Your task to perform on an android device: Go to sound settings Image 0: 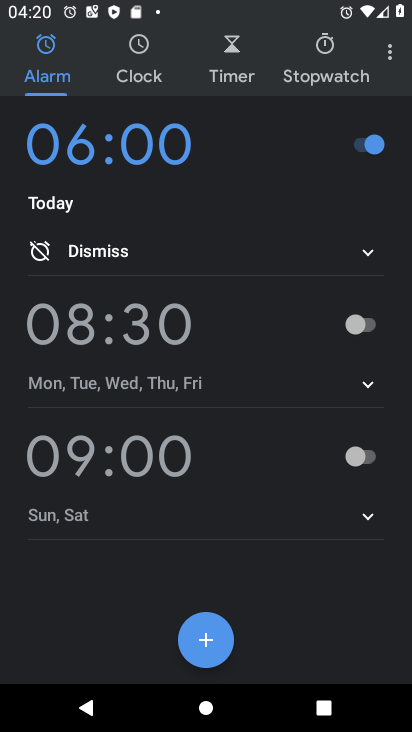
Step 0: press home button
Your task to perform on an android device: Go to sound settings Image 1: 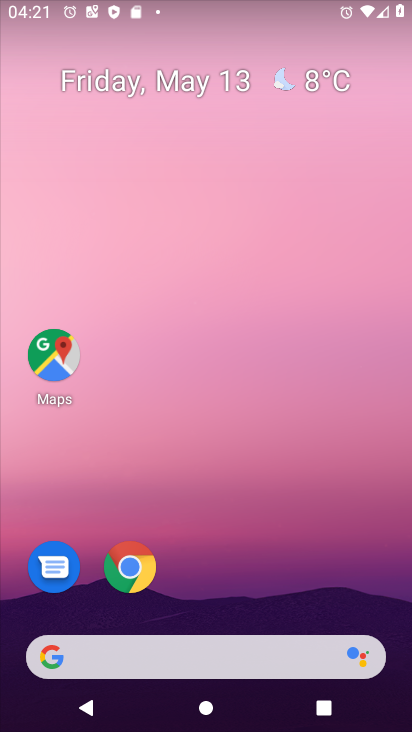
Step 1: drag from (263, 587) to (243, 45)
Your task to perform on an android device: Go to sound settings Image 2: 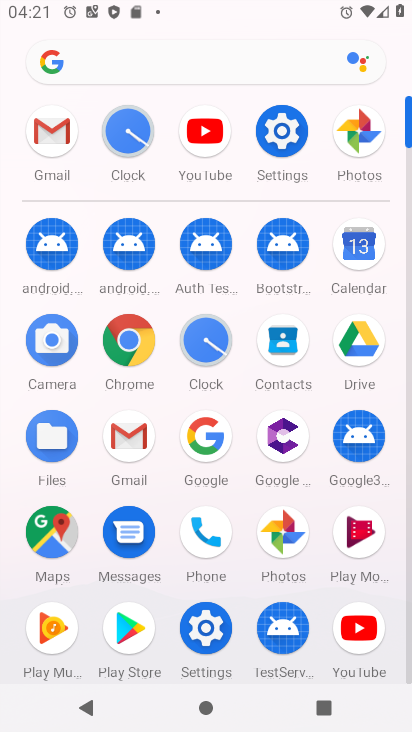
Step 2: click (280, 126)
Your task to perform on an android device: Go to sound settings Image 3: 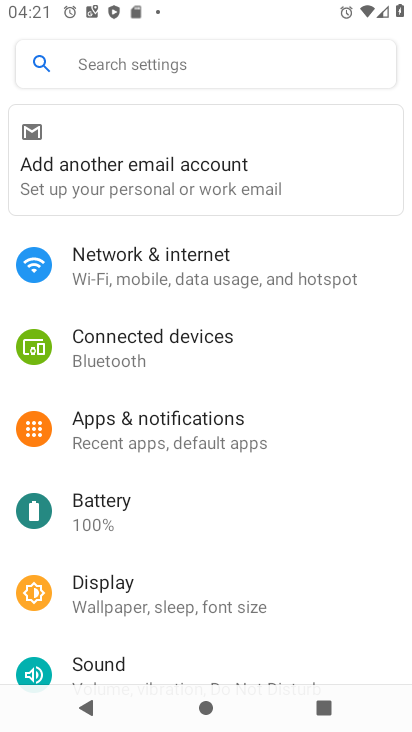
Step 3: drag from (191, 628) to (226, 401)
Your task to perform on an android device: Go to sound settings Image 4: 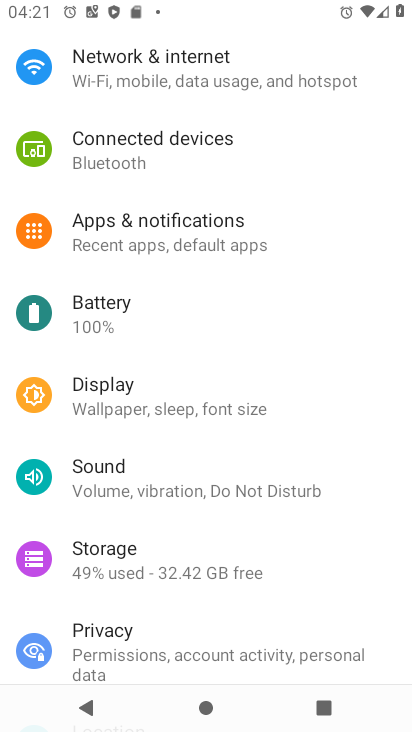
Step 4: click (105, 482)
Your task to perform on an android device: Go to sound settings Image 5: 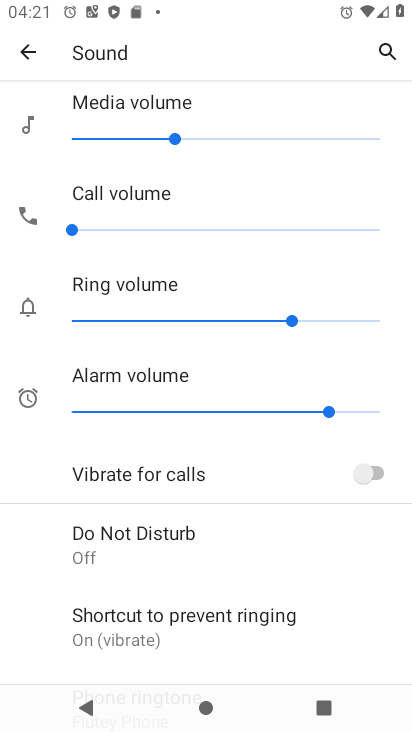
Step 5: task complete